Your task to perform on an android device: make emails show in primary in the gmail app Image 0: 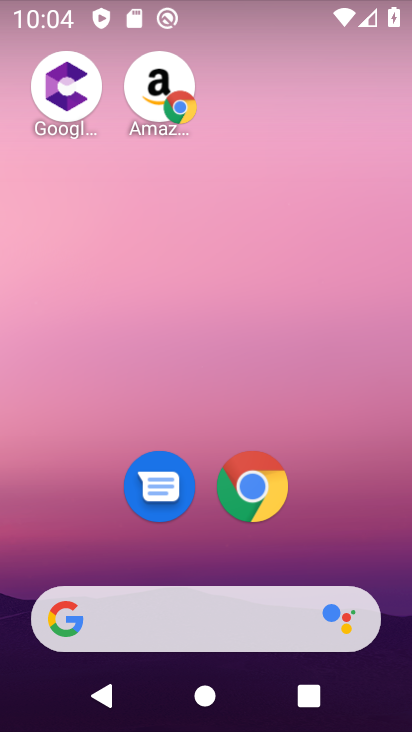
Step 0: drag from (344, 516) to (293, 190)
Your task to perform on an android device: make emails show in primary in the gmail app Image 1: 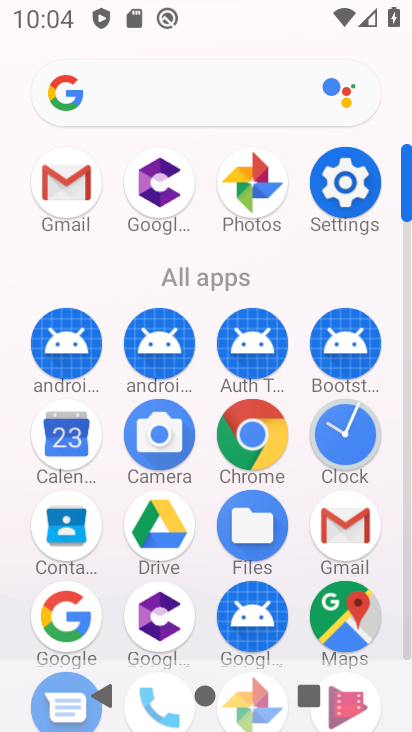
Step 1: click (66, 186)
Your task to perform on an android device: make emails show in primary in the gmail app Image 2: 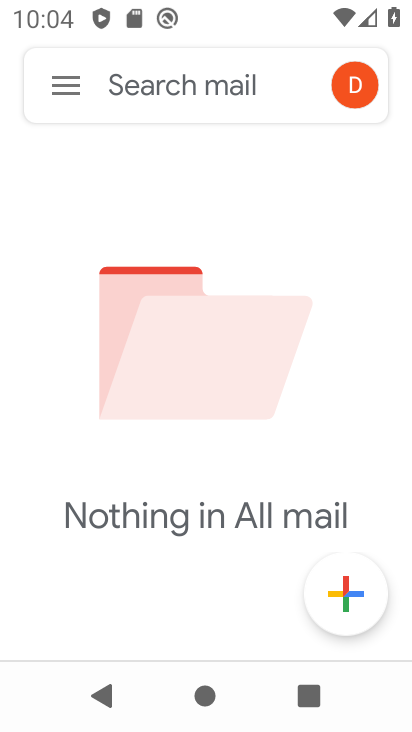
Step 2: click (62, 98)
Your task to perform on an android device: make emails show in primary in the gmail app Image 3: 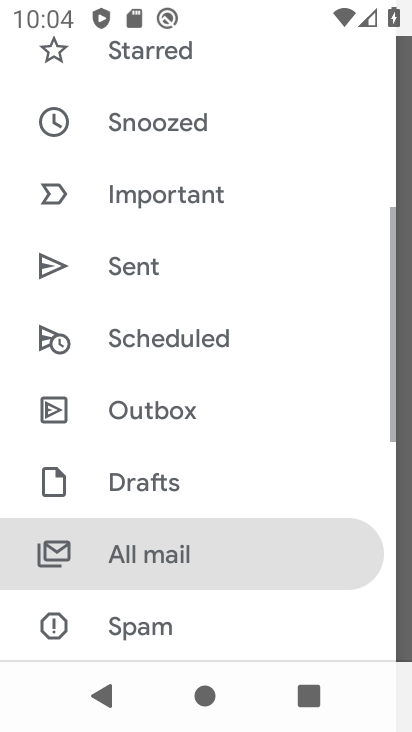
Step 3: click (108, 456)
Your task to perform on an android device: make emails show in primary in the gmail app Image 4: 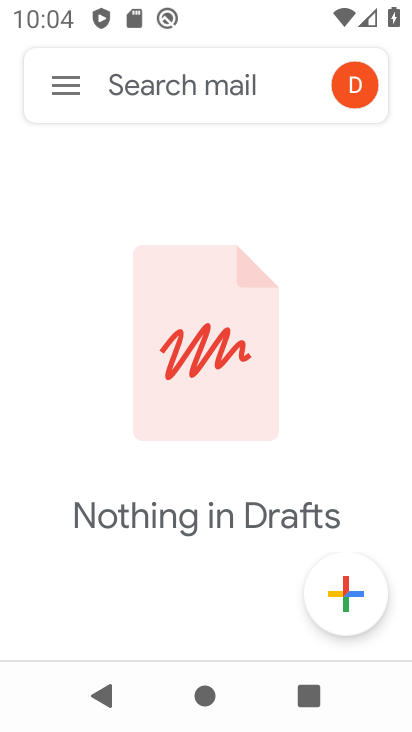
Step 4: click (58, 91)
Your task to perform on an android device: make emails show in primary in the gmail app Image 5: 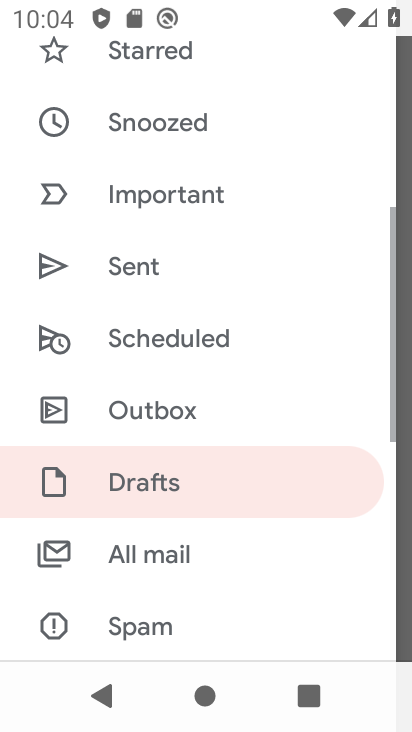
Step 5: task complete